Your task to perform on an android device: change notifications settings Image 0: 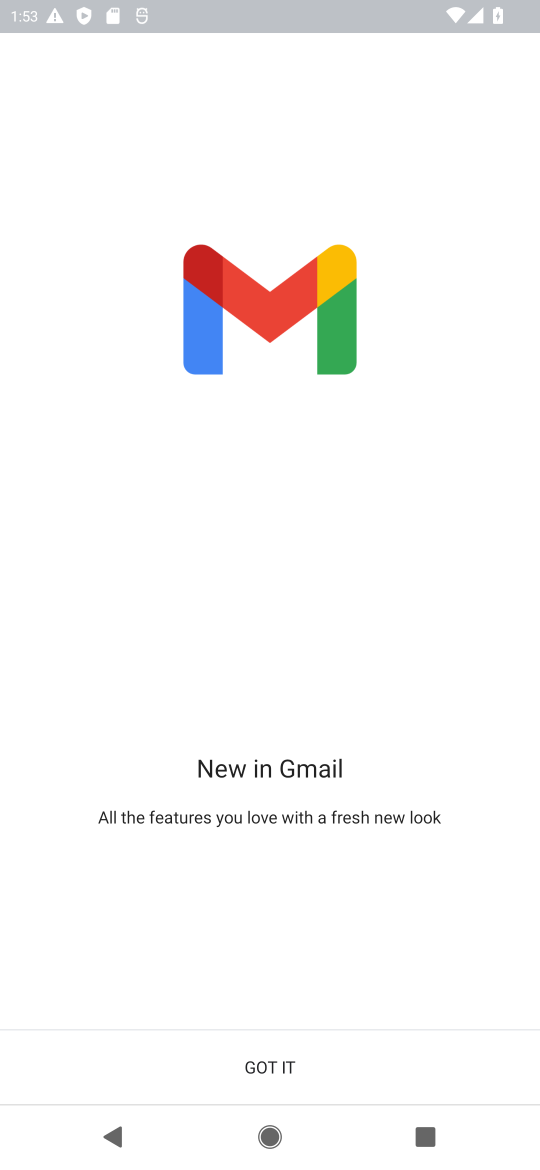
Step 0: press home button
Your task to perform on an android device: change notifications settings Image 1: 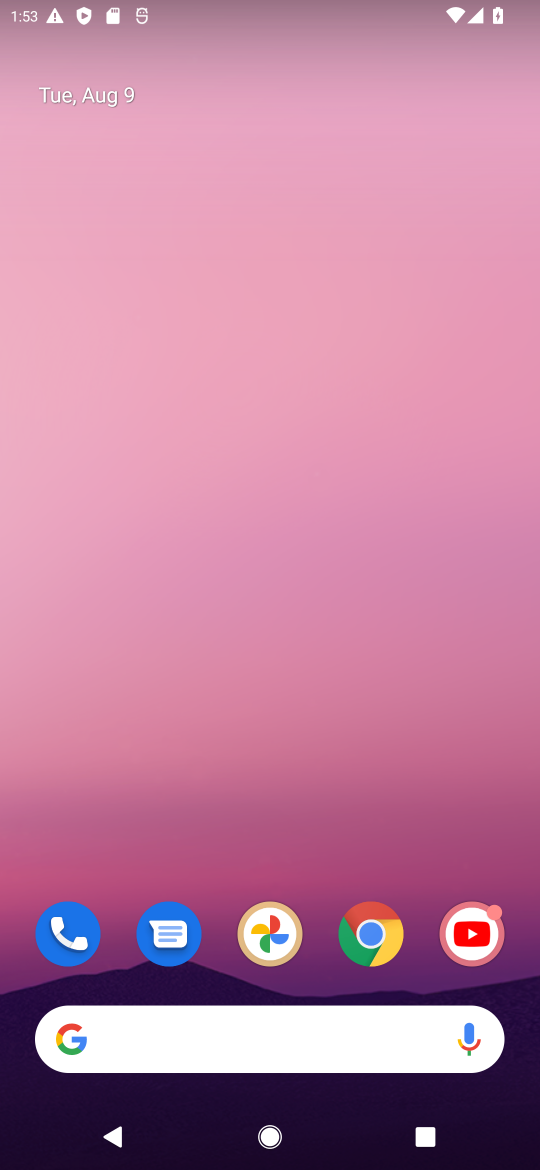
Step 1: drag from (313, 978) to (305, 30)
Your task to perform on an android device: change notifications settings Image 2: 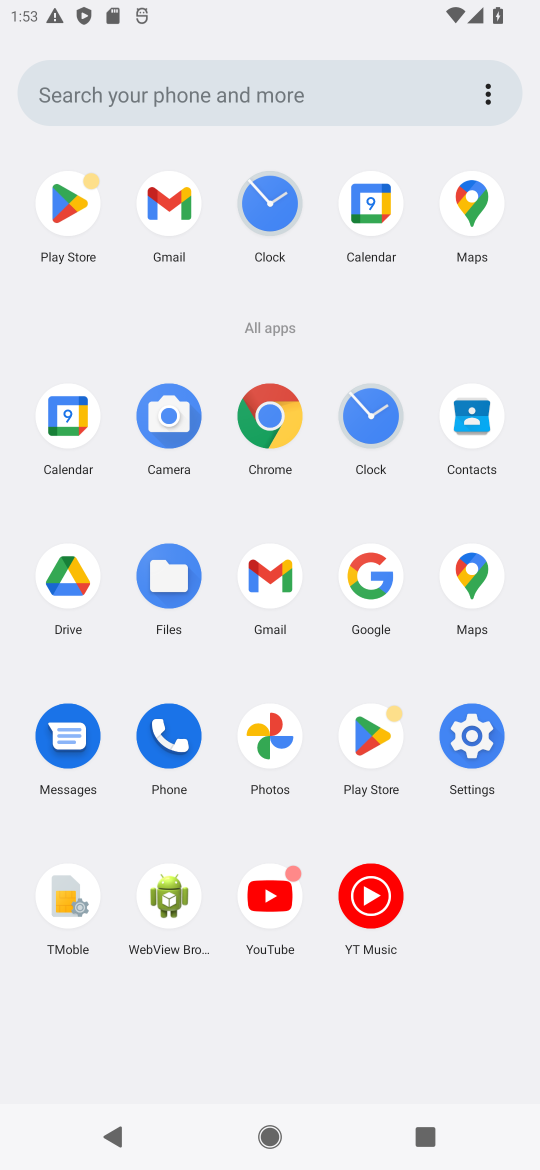
Step 2: click (474, 768)
Your task to perform on an android device: change notifications settings Image 3: 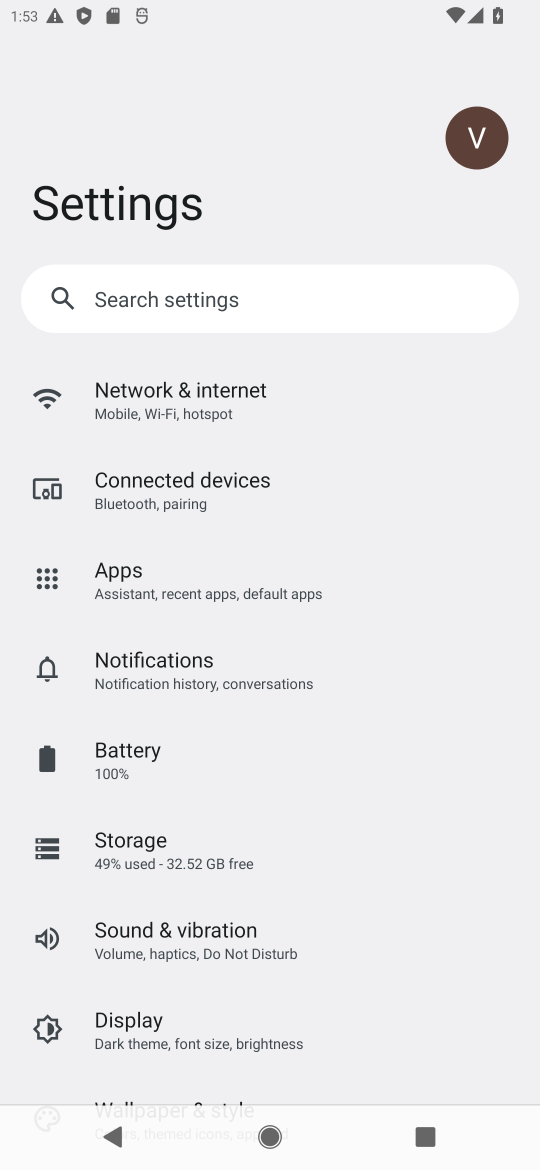
Step 3: drag from (270, 978) to (266, 428)
Your task to perform on an android device: change notifications settings Image 4: 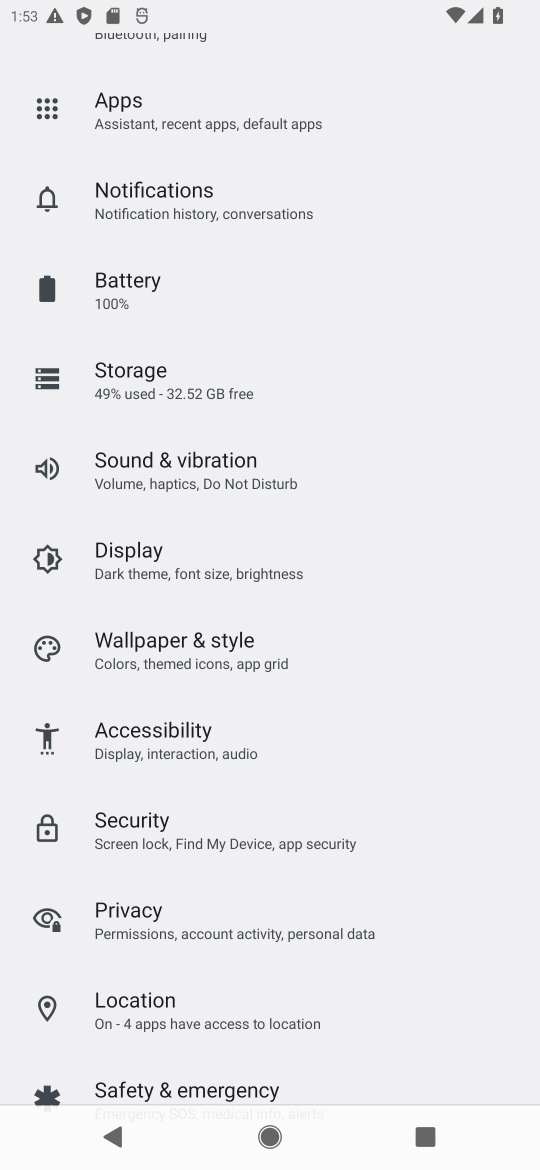
Step 4: click (211, 226)
Your task to perform on an android device: change notifications settings Image 5: 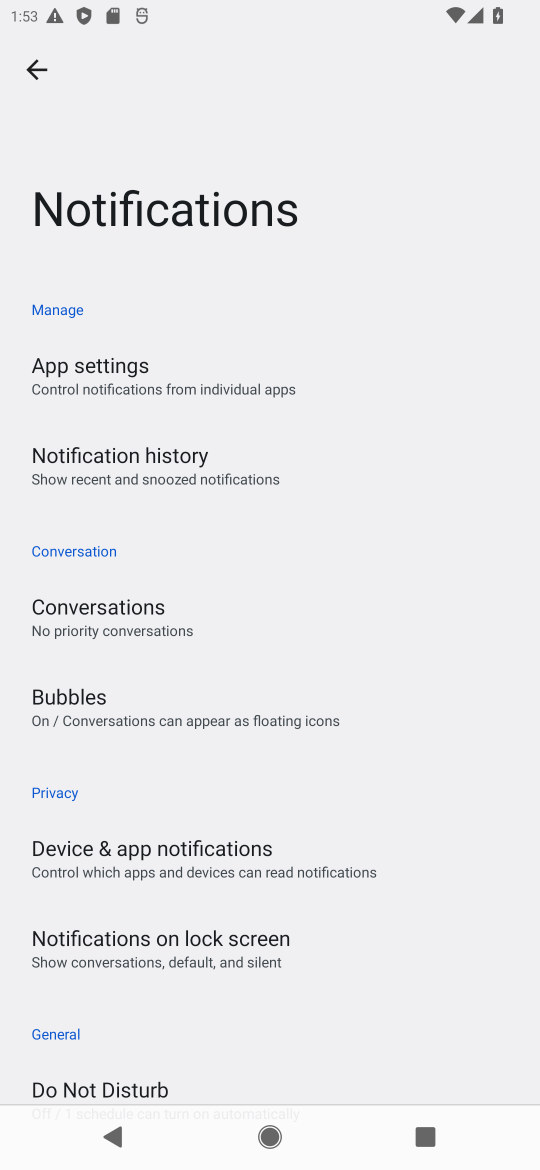
Step 5: task complete